Your task to perform on an android device: Do I have any events tomorrow? Image 0: 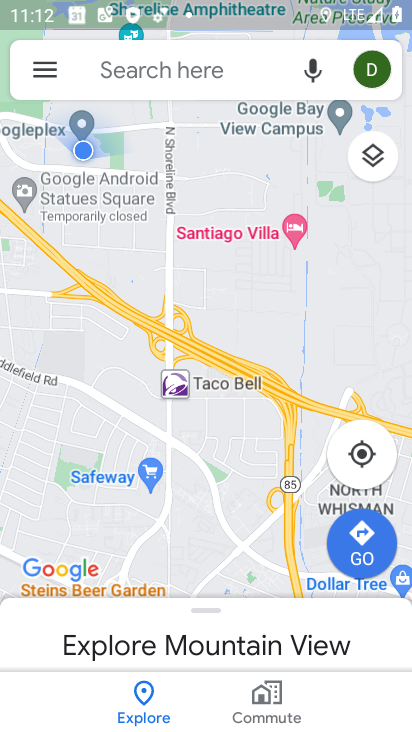
Step 0: press home button
Your task to perform on an android device: Do I have any events tomorrow? Image 1: 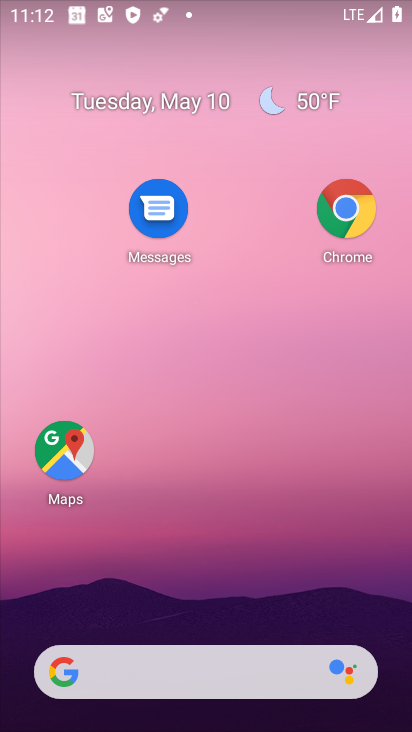
Step 1: drag from (184, 609) to (185, 15)
Your task to perform on an android device: Do I have any events tomorrow? Image 2: 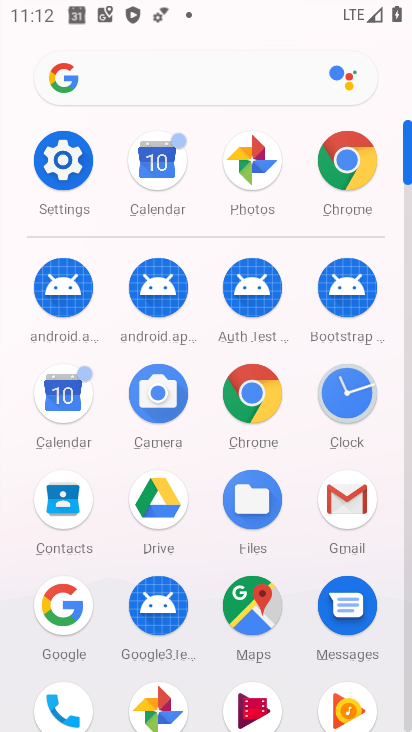
Step 2: click (48, 405)
Your task to perform on an android device: Do I have any events tomorrow? Image 3: 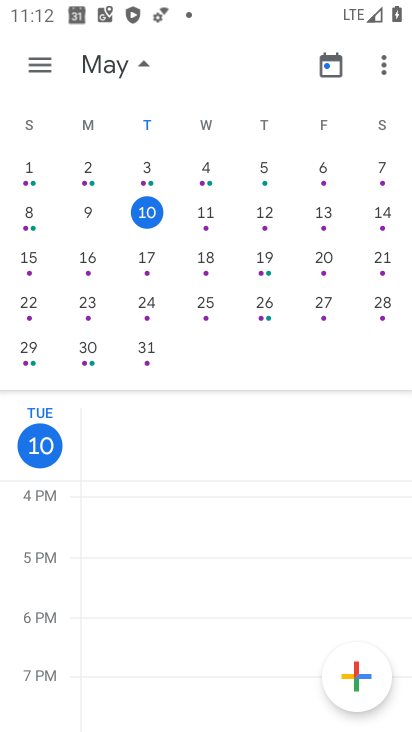
Step 3: click (206, 216)
Your task to perform on an android device: Do I have any events tomorrow? Image 4: 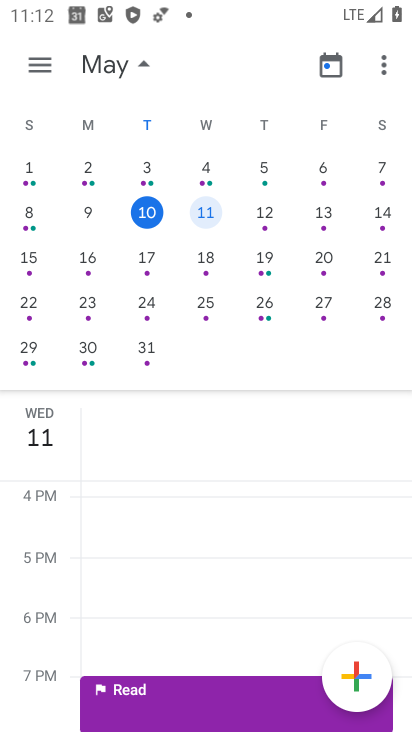
Step 4: task complete